Your task to perform on an android device: turn notification dots on Image 0: 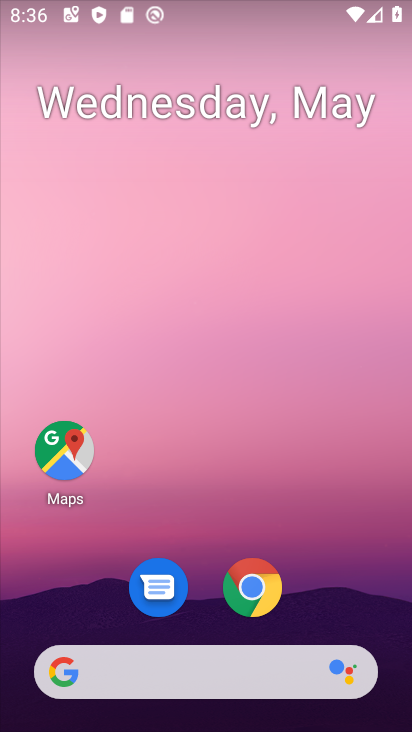
Step 0: drag from (383, 655) to (319, 112)
Your task to perform on an android device: turn notification dots on Image 1: 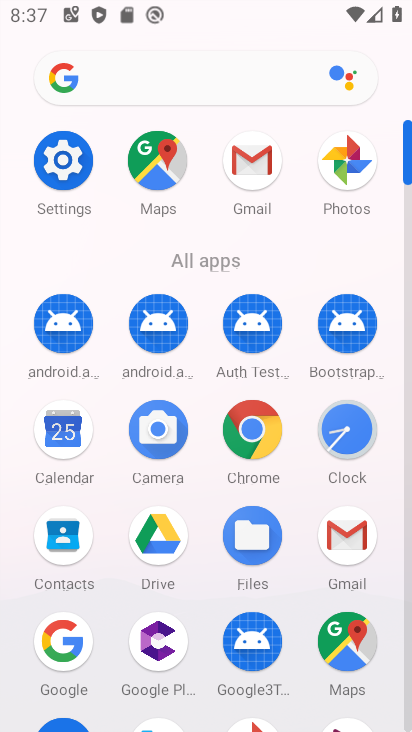
Step 1: click (407, 707)
Your task to perform on an android device: turn notification dots on Image 2: 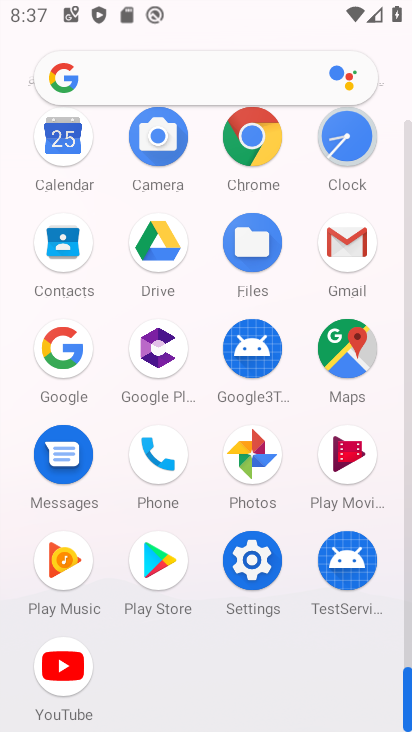
Step 2: click (254, 559)
Your task to perform on an android device: turn notification dots on Image 3: 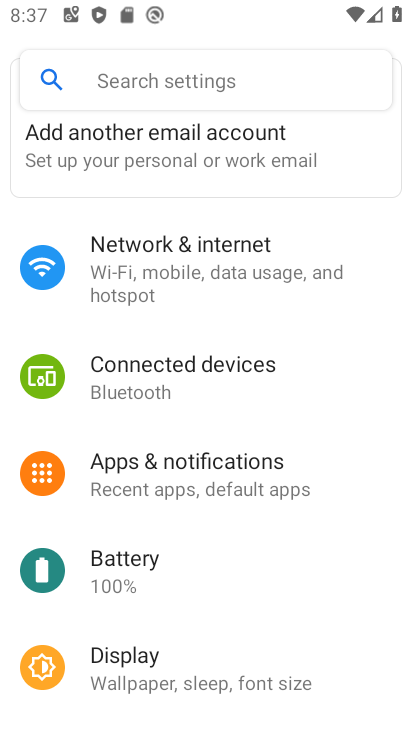
Step 3: click (180, 469)
Your task to perform on an android device: turn notification dots on Image 4: 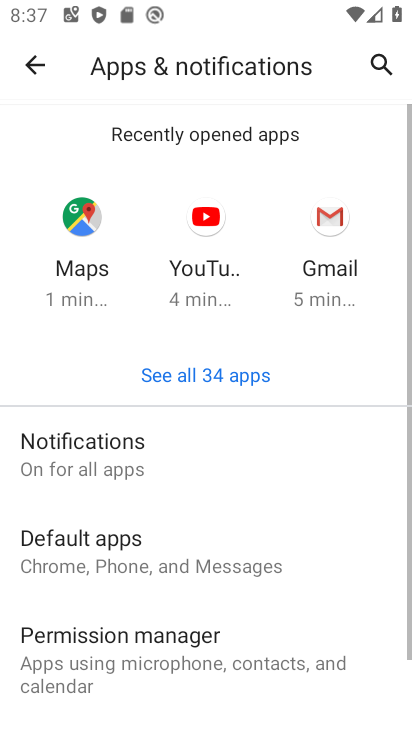
Step 4: click (47, 435)
Your task to perform on an android device: turn notification dots on Image 5: 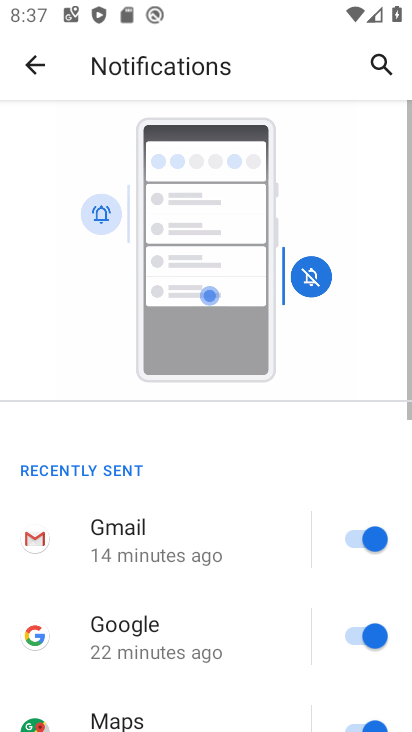
Step 5: drag from (115, 657) to (181, 87)
Your task to perform on an android device: turn notification dots on Image 6: 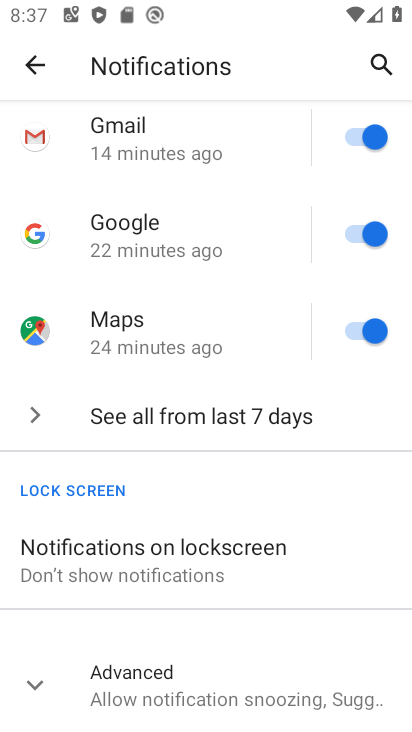
Step 6: click (38, 681)
Your task to perform on an android device: turn notification dots on Image 7: 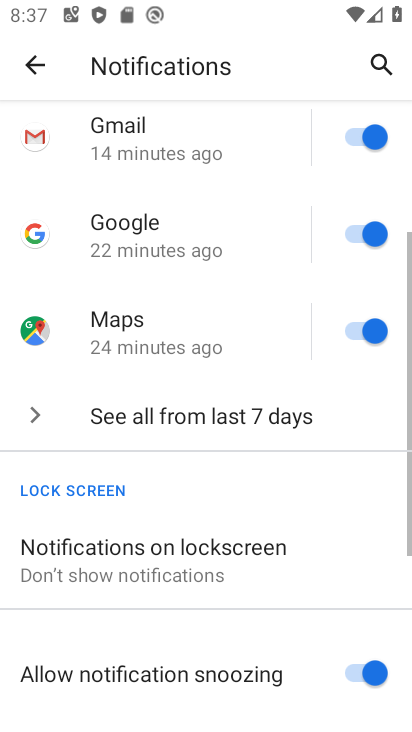
Step 7: drag from (308, 658) to (256, 40)
Your task to perform on an android device: turn notification dots on Image 8: 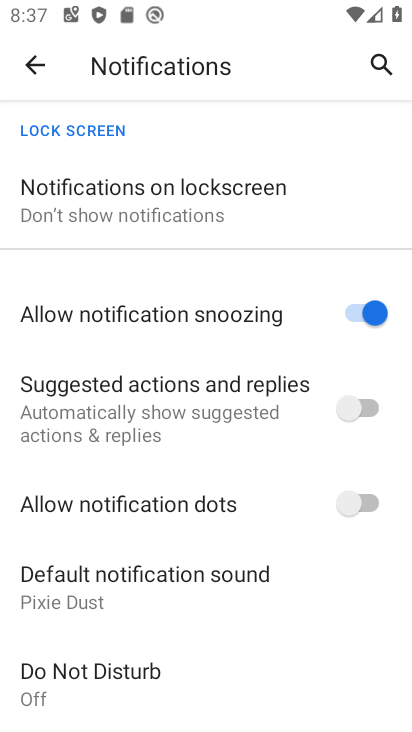
Step 8: click (373, 506)
Your task to perform on an android device: turn notification dots on Image 9: 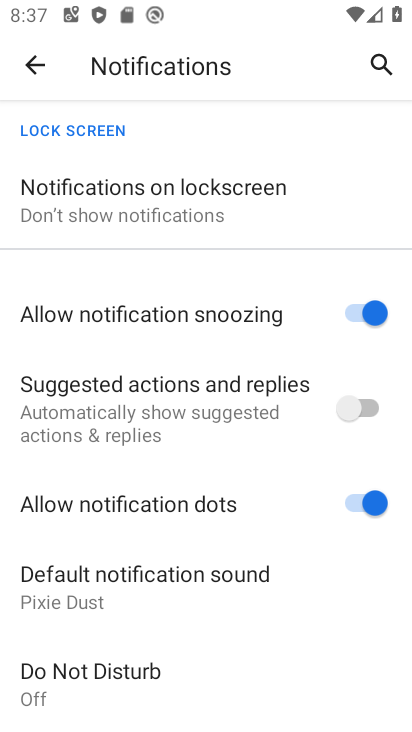
Step 9: task complete